Your task to perform on an android device: Go to accessibility settings Image 0: 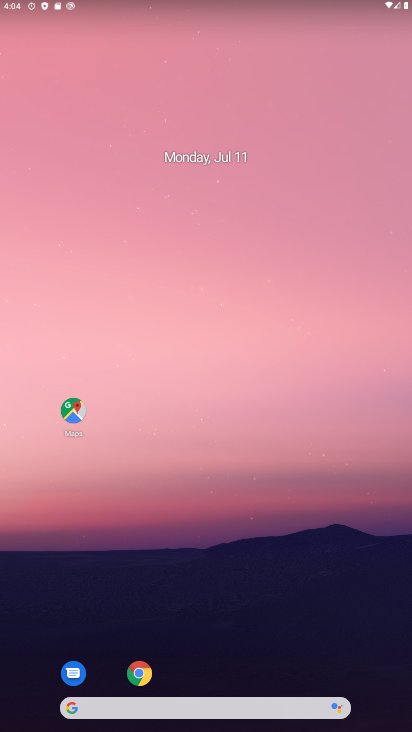
Step 0: drag from (291, 622) to (312, 177)
Your task to perform on an android device: Go to accessibility settings Image 1: 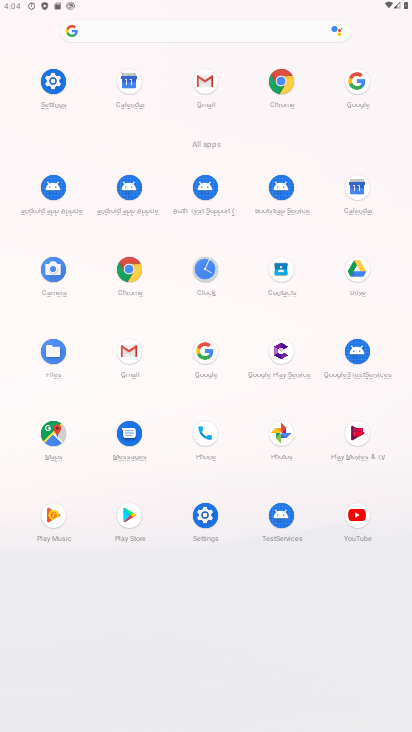
Step 1: click (202, 512)
Your task to perform on an android device: Go to accessibility settings Image 2: 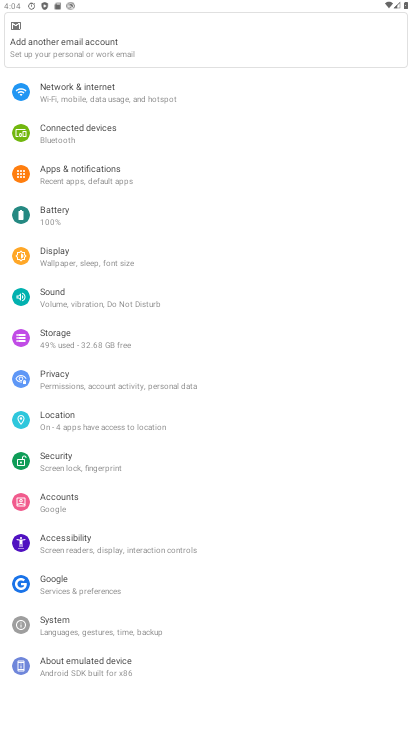
Step 2: click (70, 543)
Your task to perform on an android device: Go to accessibility settings Image 3: 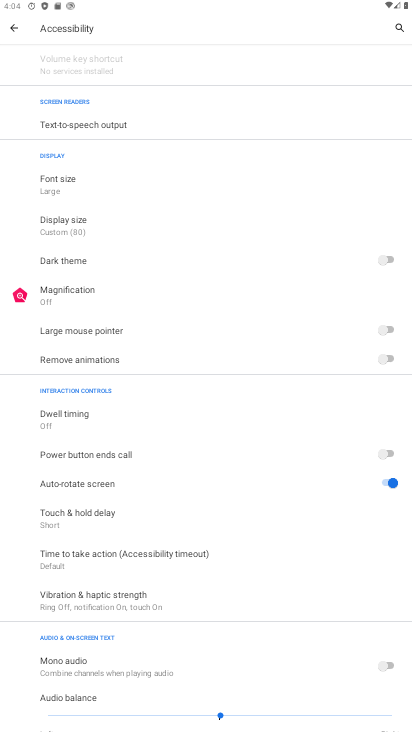
Step 3: task complete